Your task to perform on an android device: open chrome and create a bookmark for the current page Image 0: 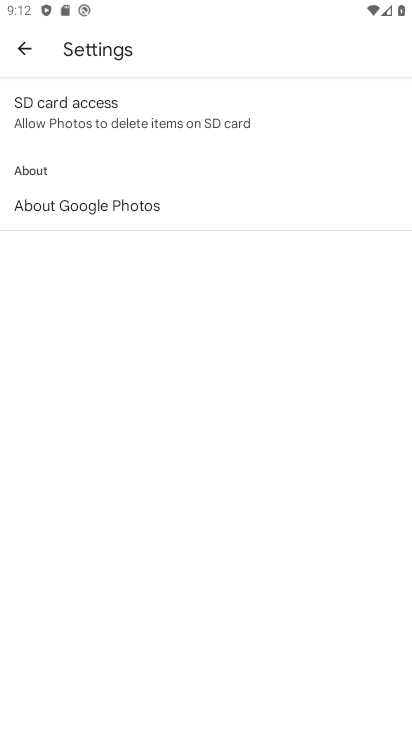
Step 0: press home button
Your task to perform on an android device: open chrome and create a bookmark for the current page Image 1: 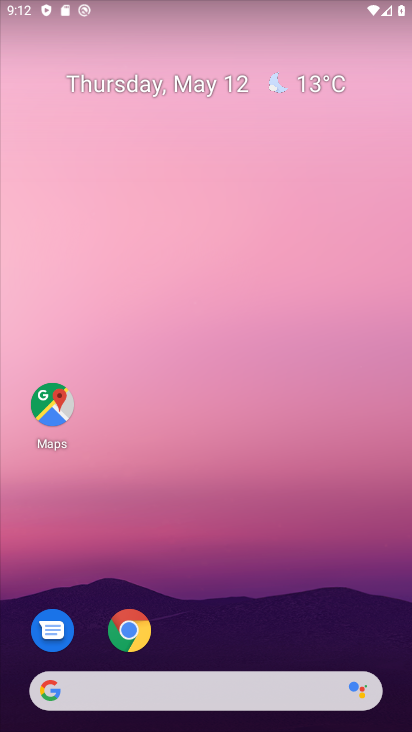
Step 1: click (134, 634)
Your task to perform on an android device: open chrome and create a bookmark for the current page Image 2: 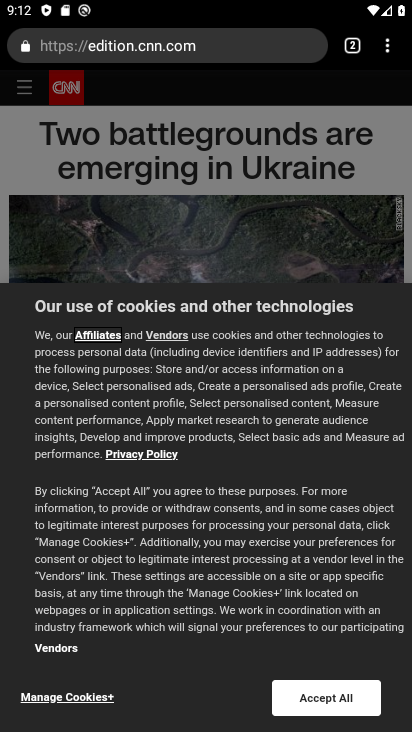
Step 2: click (387, 43)
Your task to perform on an android device: open chrome and create a bookmark for the current page Image 3: 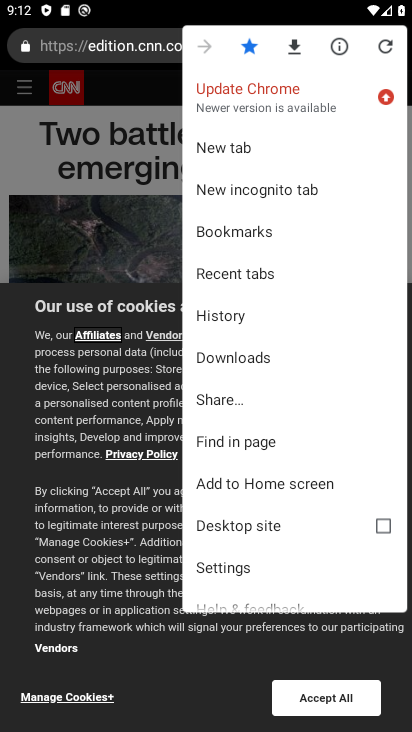
Step 3: task complete